Your task to perform on an android device: create a new album in the google photos Image 0: 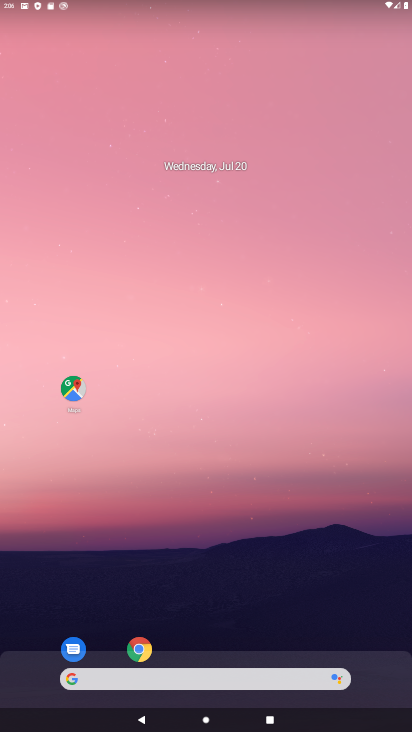
Step 0: drag from (210, 504) to (198, 4)
Your task to perform on an android device: create a new album in the google photos Image 1: 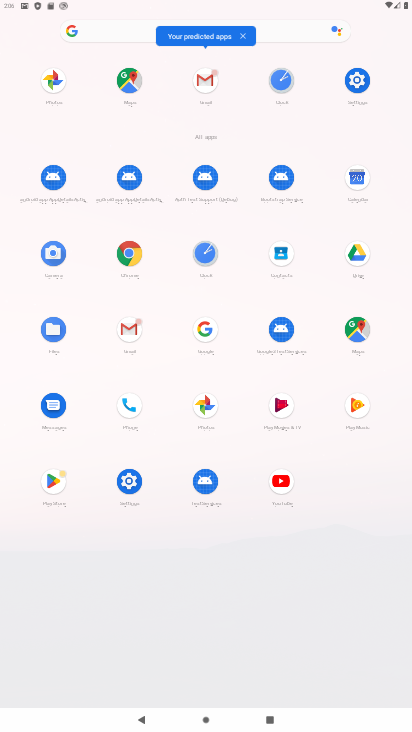
Step 1: click (203, 395)
Your task to perform on an android device: create a new album in the google photos Image 2: 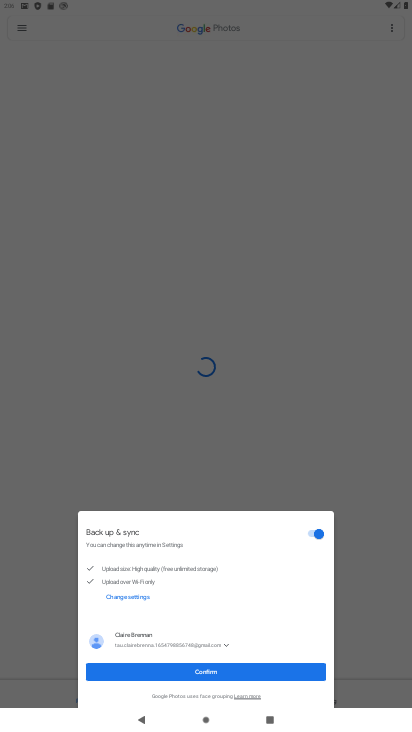
Step 2: click (193, 669)
Your task to perform on an android device: create a new album in the google photos Image 3: 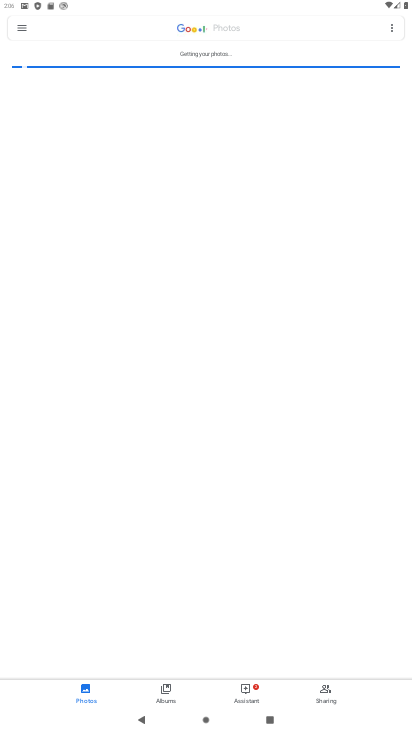
Step 3: click (166, 683)
Your task to perform on an android device: create a new album in the google photos Image 4: 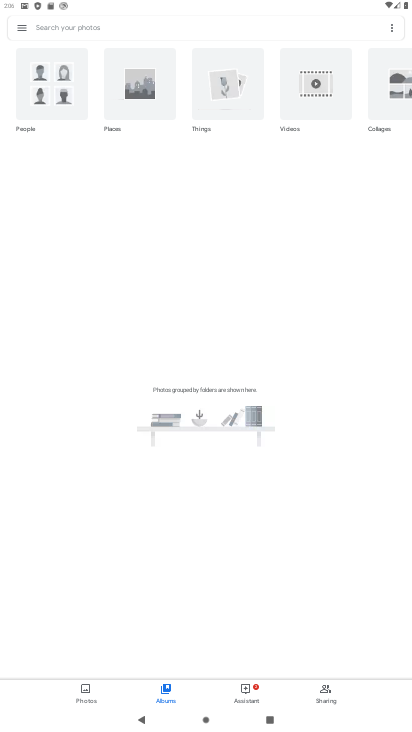
Step 4: click (393, 28)
Your task to perform on an android device: create a new album in the google photos Image 5: 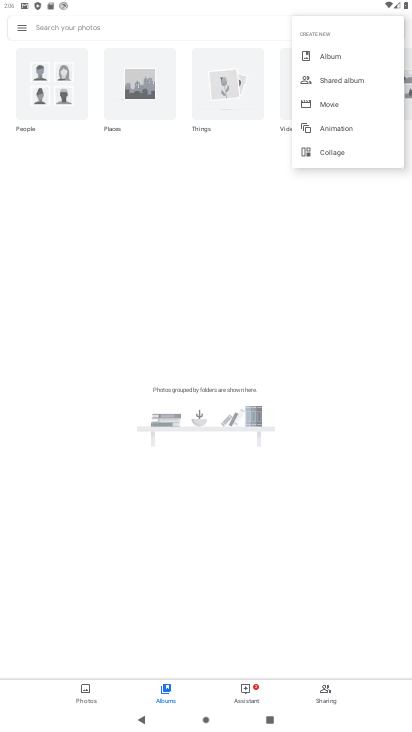
Step 5: click (329, 49)
Your task to perform on an android device: create a new album in the google photos Image 6: 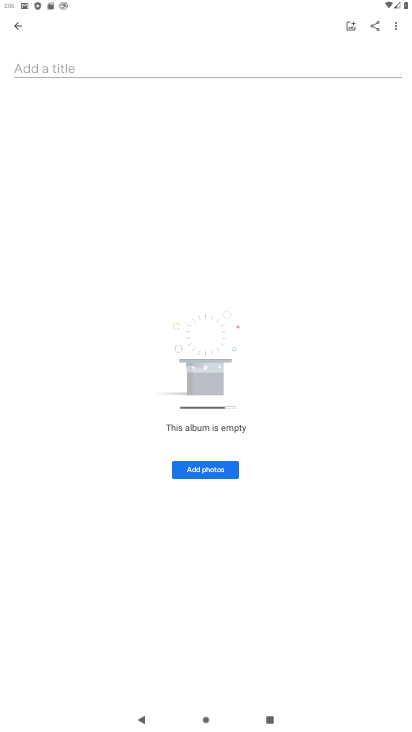
Step 6: click (238, 78)
Your task to perform on an android device: create a new album in the google photos Image 7: 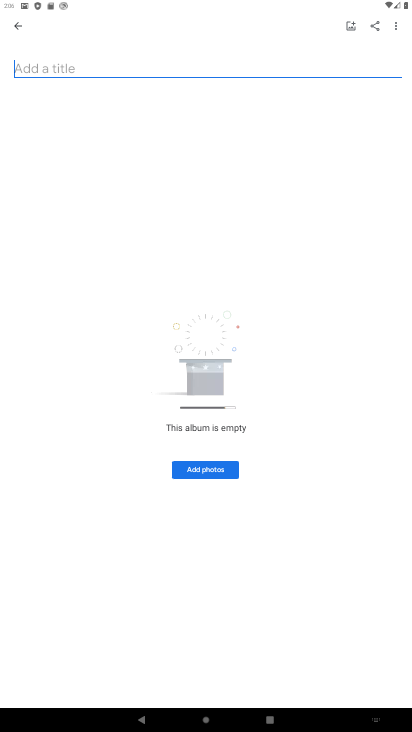
Step 7: type "mkl"
Your task to perform on an android device: create a new album in the google photos Image 8: 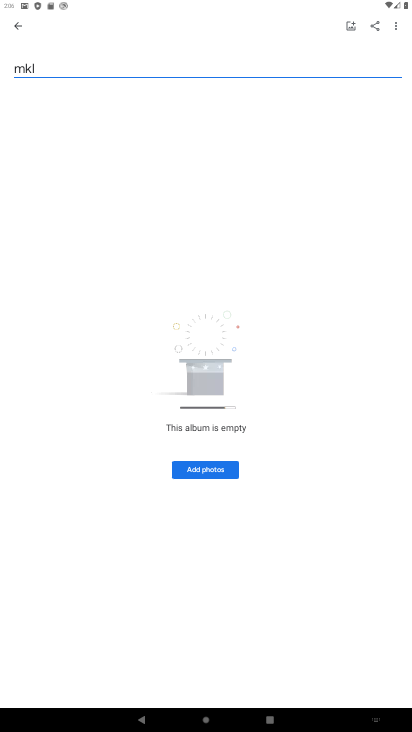
Step 8: click (194, 464)
Your task to perform on an android device: create a new album in the google photos Image 9: 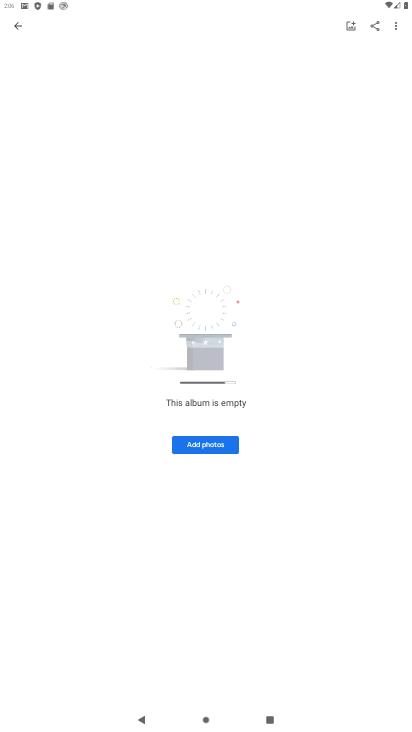
Step 9: click (223, 446)
Your task to perform on an android device: create a new album in the google photos Image 10: 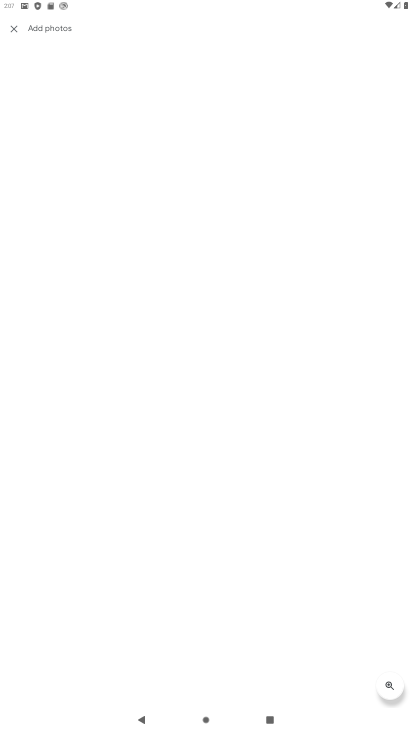
Step 10: task complete